Your task to perform on an android device: Go to battery settings Image 0: 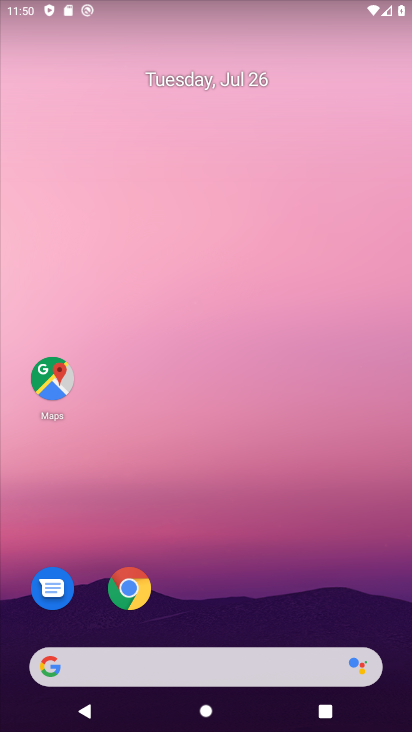
Step 0: drag from (65, 624) to (322, 40)
Your task to perform on an android device: Go to battery settings Image 1: 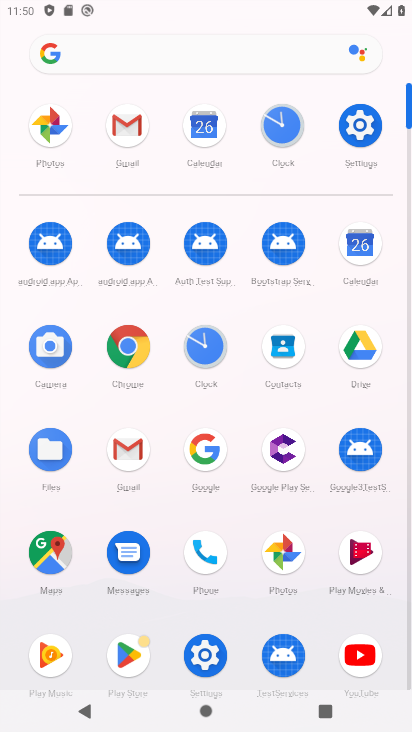
Step 1: click (223, 646)
Your task to perform on an android device: Go to battery settings Image 2: 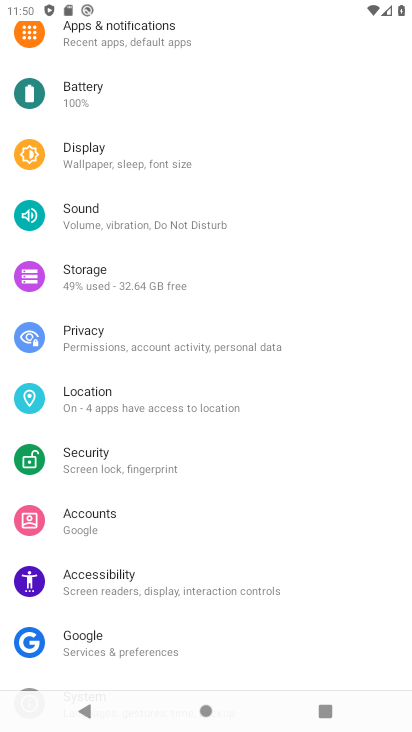
Step 2: click (110, 93)
Your task to perform on an android device: Go to battery settings Image 3: 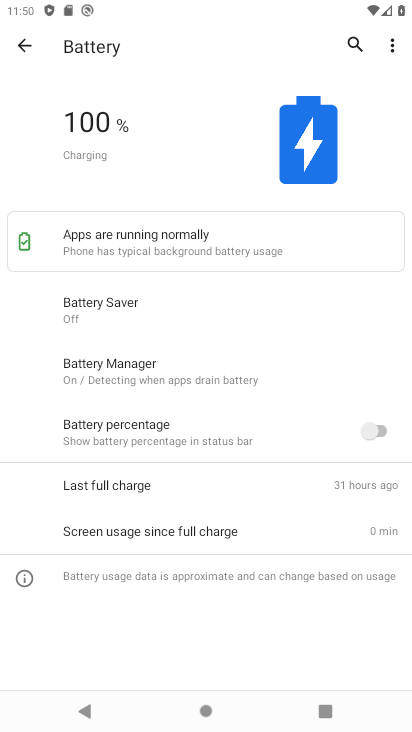
Step 3: task complete